Your task to perform on an android device: What's on my calendar tomorrow? Image 0: 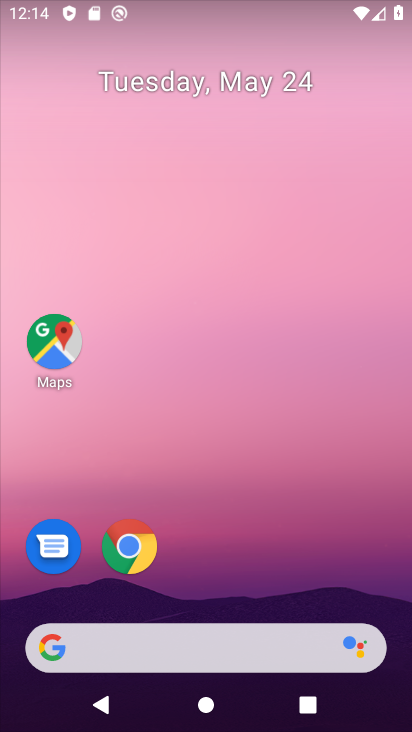
Step 0: drag from (339, 676) to (351, 145)
Your task to perform on an android device: What's on my calendar tomorrow? Image 1: 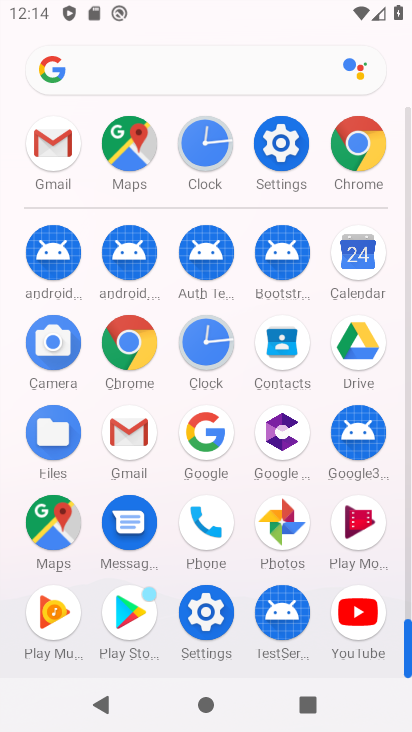
Step 1: click (348, 268)
Your task to perform on an android device: What's on my calendar tomorrow? Image 2: 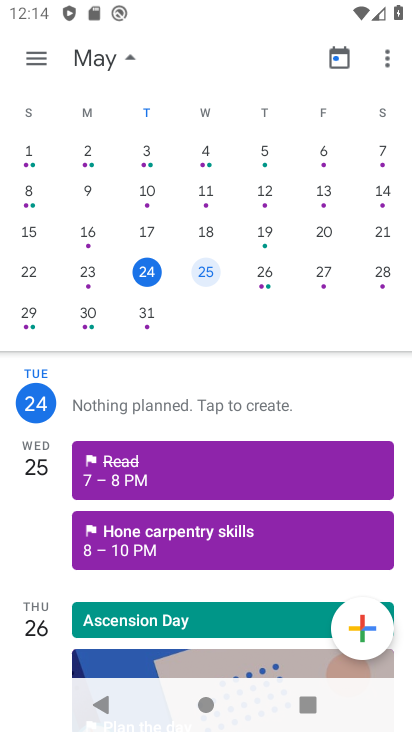
Step 2: click (208, 270)
Your task to perform on an android device: What's on my calendar tomorrow? Image 3: 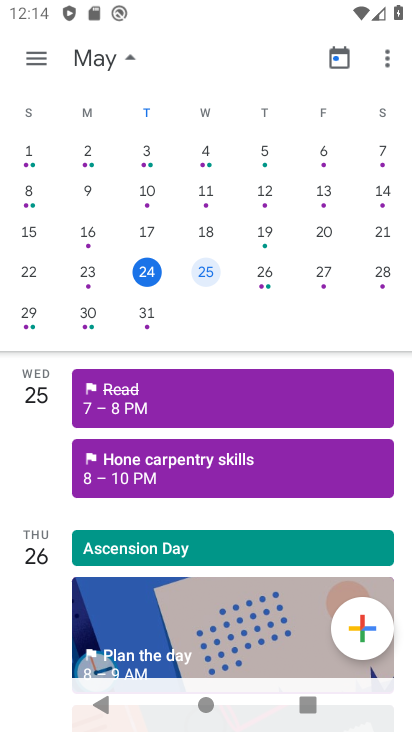
Step 3: task complete